Your task to perform on an android device: toggle translation in the chrome app Image 0: 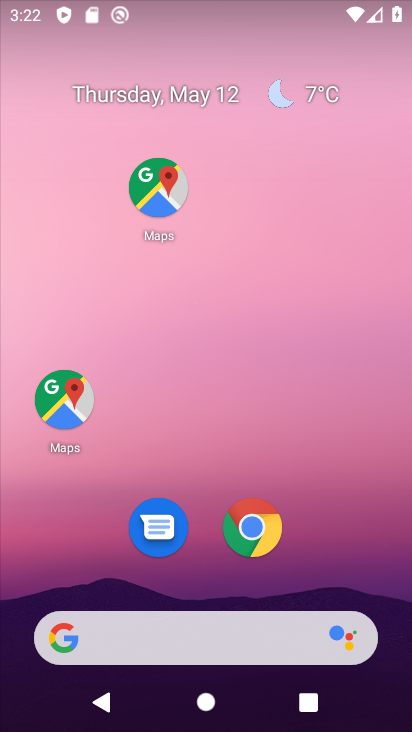
Step 0: click (256, 528)
Your task to perform on an android device: toggle translation in the chrome app Image 1: 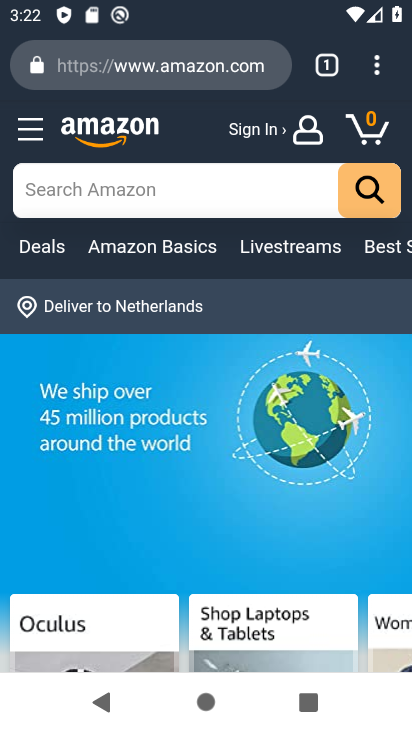
Step 1: press home button
Your task to perform on an android device: toggle translation in the chrome app Image 2: 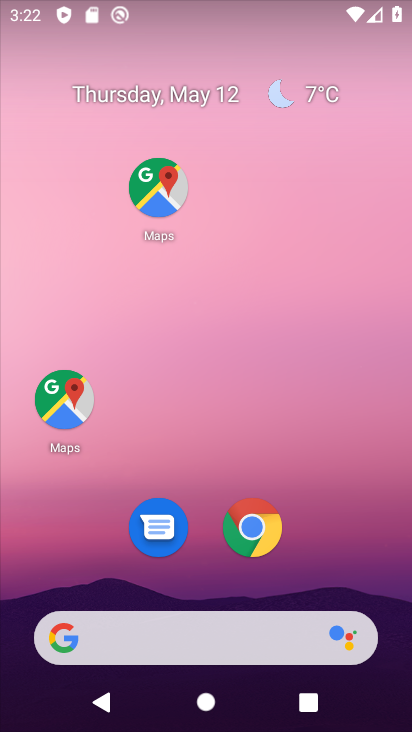
Step 2: click (244, 526)
Your task to perform on an android device: toggle translation in the chrome app Image 3: 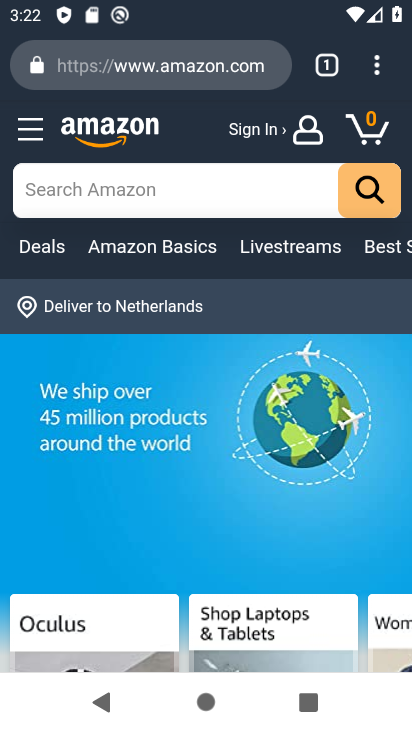
Step 3: click (369, 71)
Your task to perform on an android device: toggle translation in the chrome app Image 4: 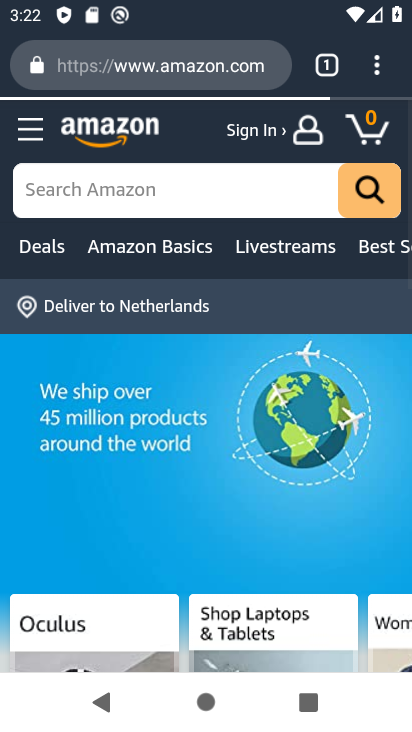
Step 4: drag from (370, 71) to (142, 585)
Your task to perform on an android device: toggle translation in the chrome app Image 5: 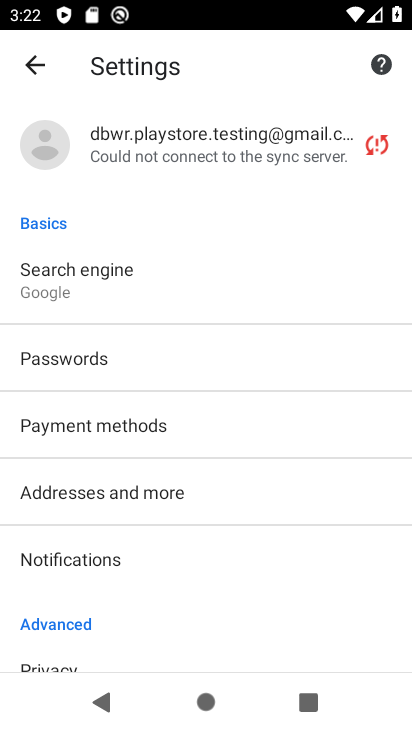
Step 5: drag from (123, 523) to (111, 112)
Your task to perform on an android device: toggle translation in the chrome app Image 6: 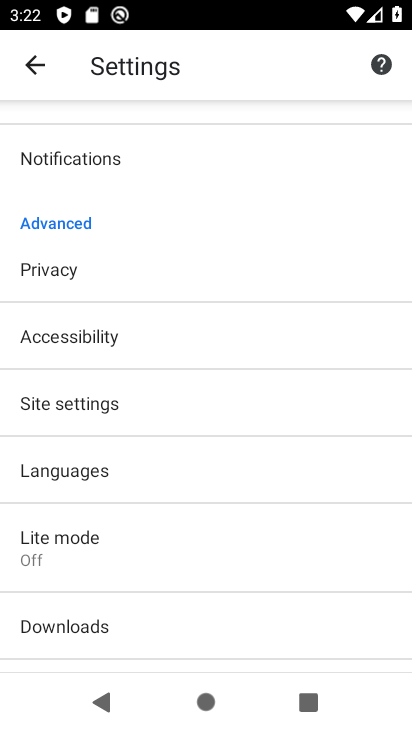
Step 6: click (99, 471)
Your task to perform on an android device: toggle translation in the chrome app Image 7: 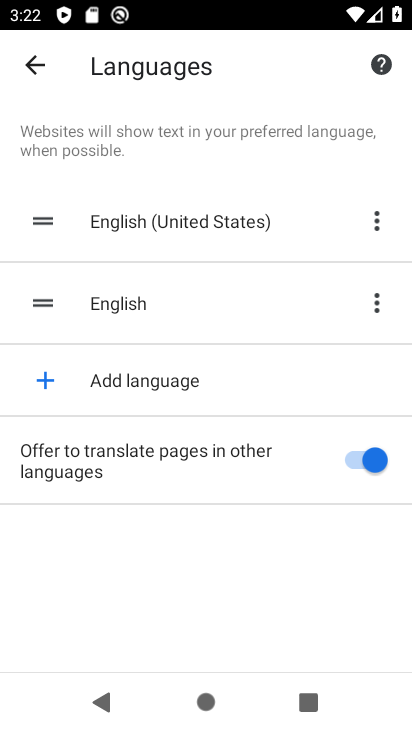
Step 7: click (346, 453)
Your task to perform on an android device: toggle translation in the chrome app Image 8: 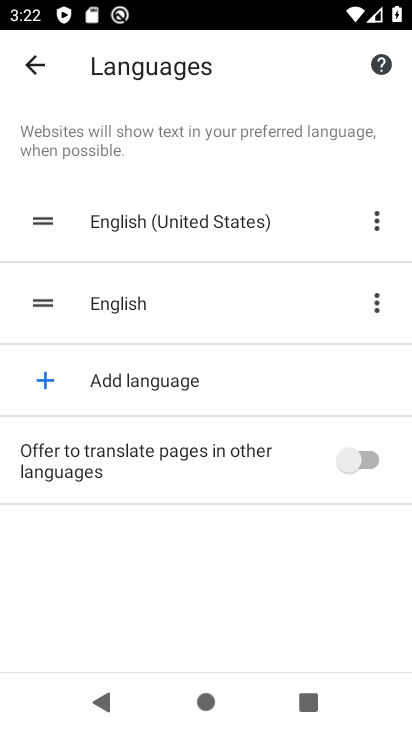
Step 8: task complete